Your task to perform on an android device: toggle show notifications on the lock screen Image 0: 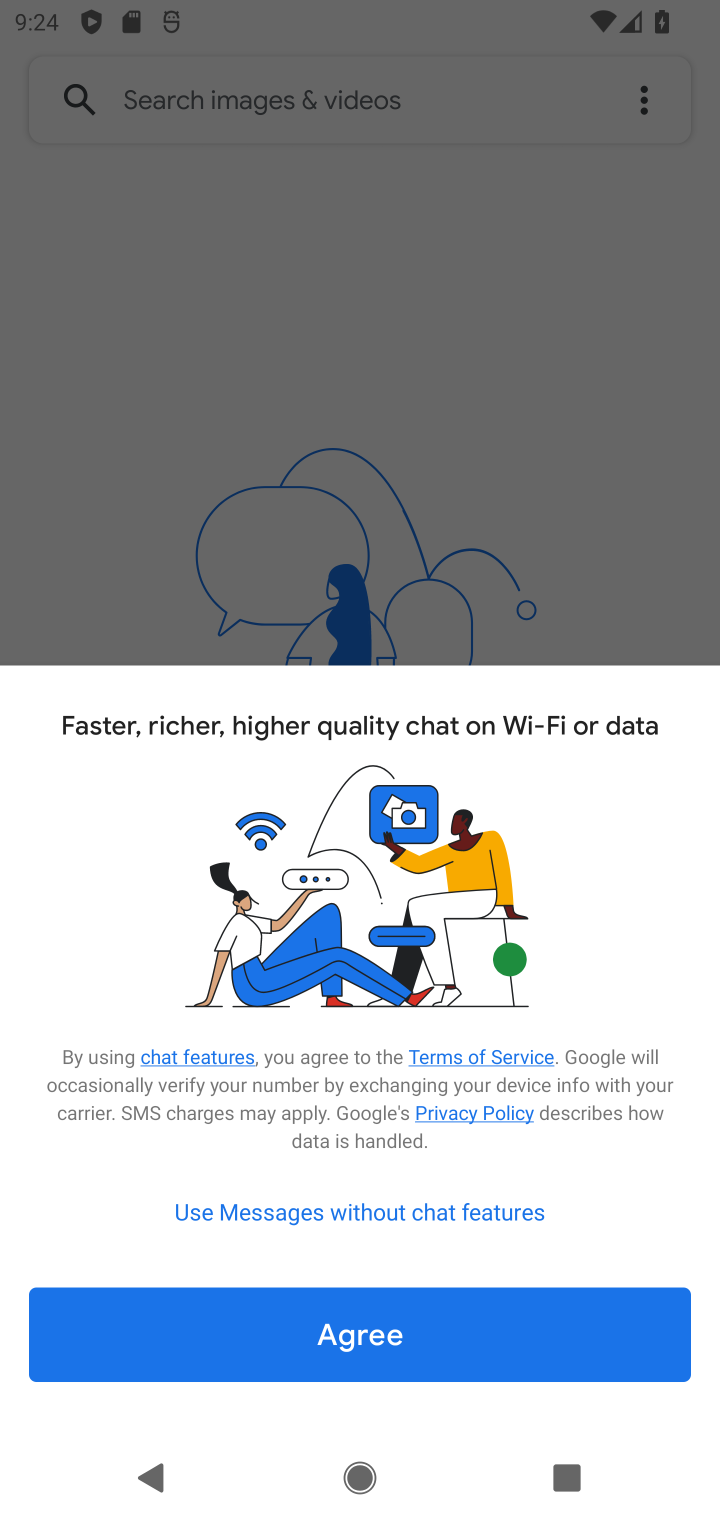
Step 0: press home button
Your task to perform on an android device: toggle show notifications on the lock screen Image 1: 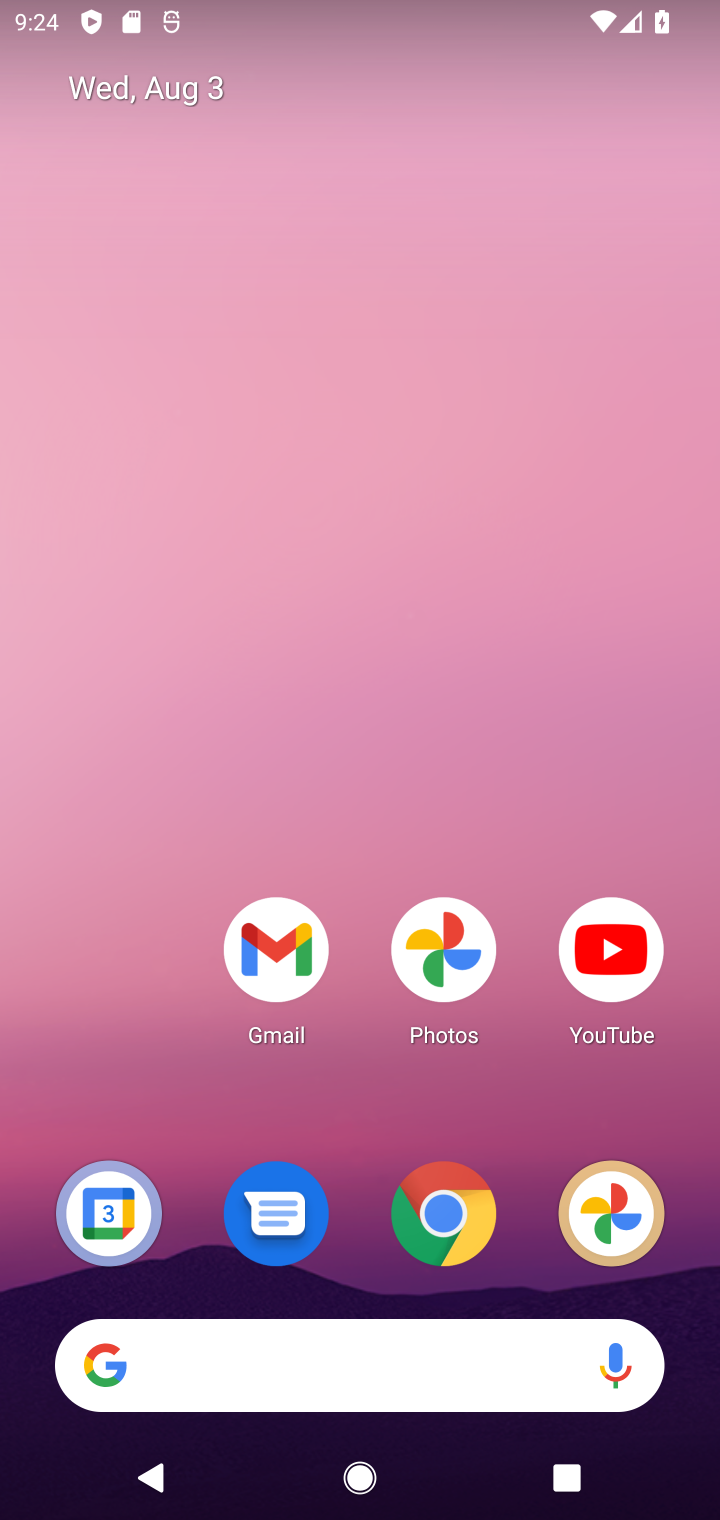
Step 1: drag from (513, 1066) to (449, 357)
Your task to perform on an android device: toggle show notifications on the lock screen Image 2: 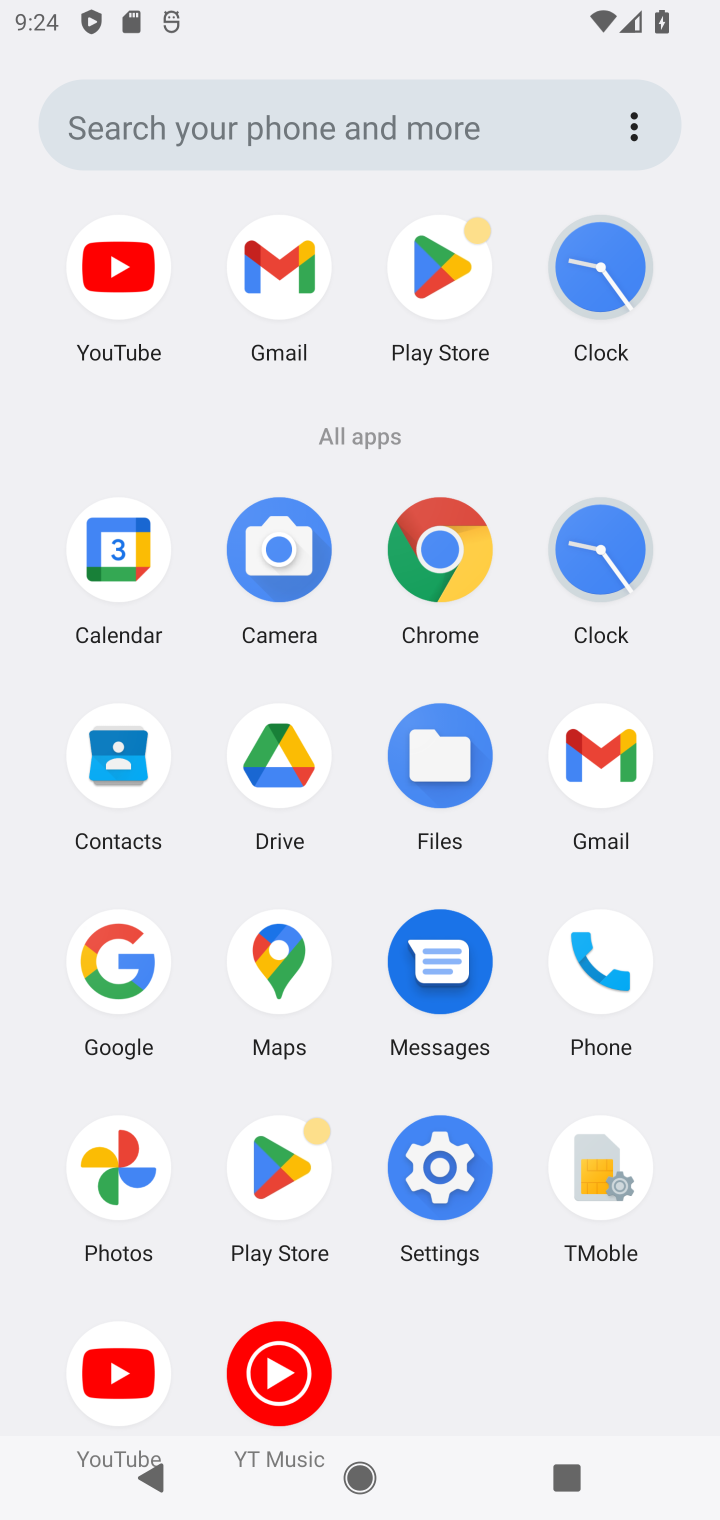
Step 2: click (439, 1147)
Your task to perform on an android device: toggle show notifications on the lock screen Image 3: 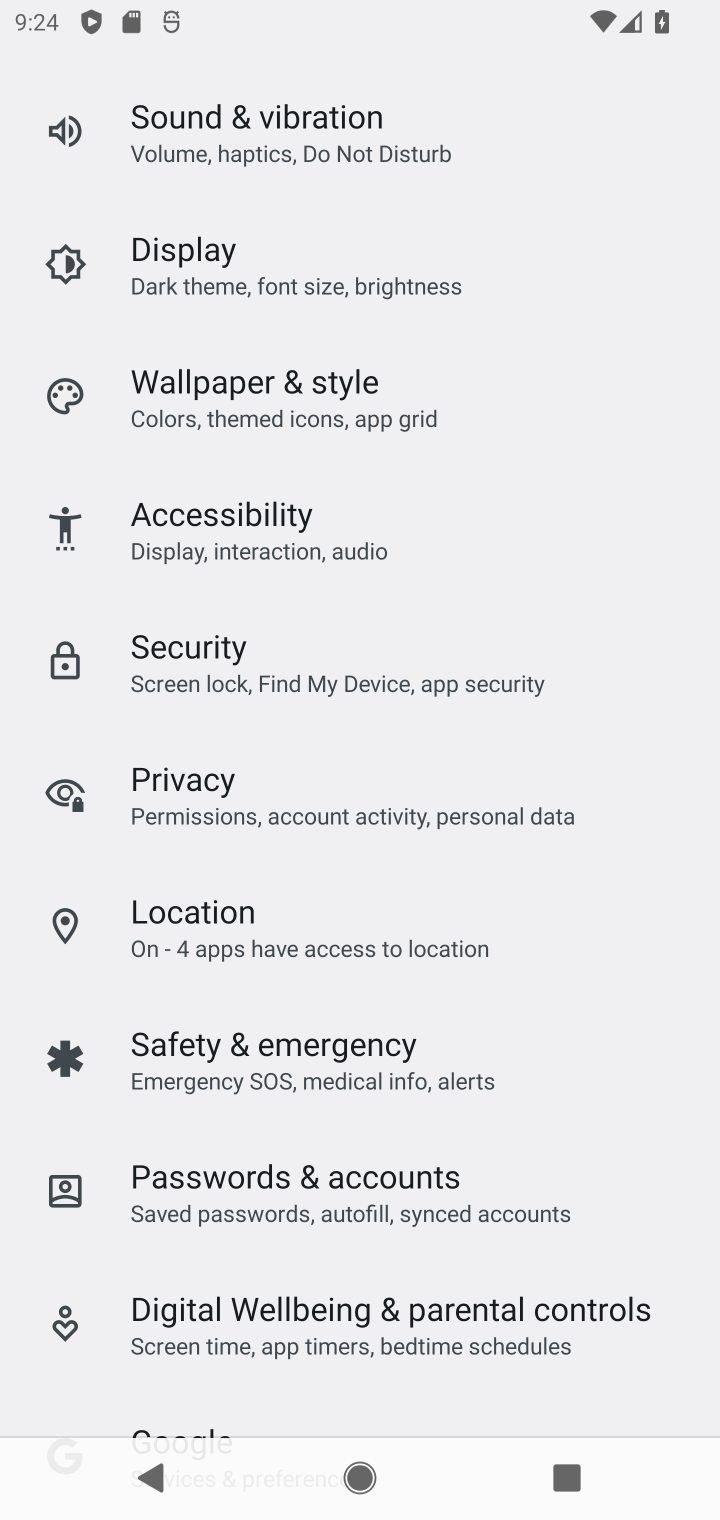
Step 3: drag from (283, 229) to (298, 676)
Your task to perform on an android device: toggle show notifications on the lock screen Image 4: 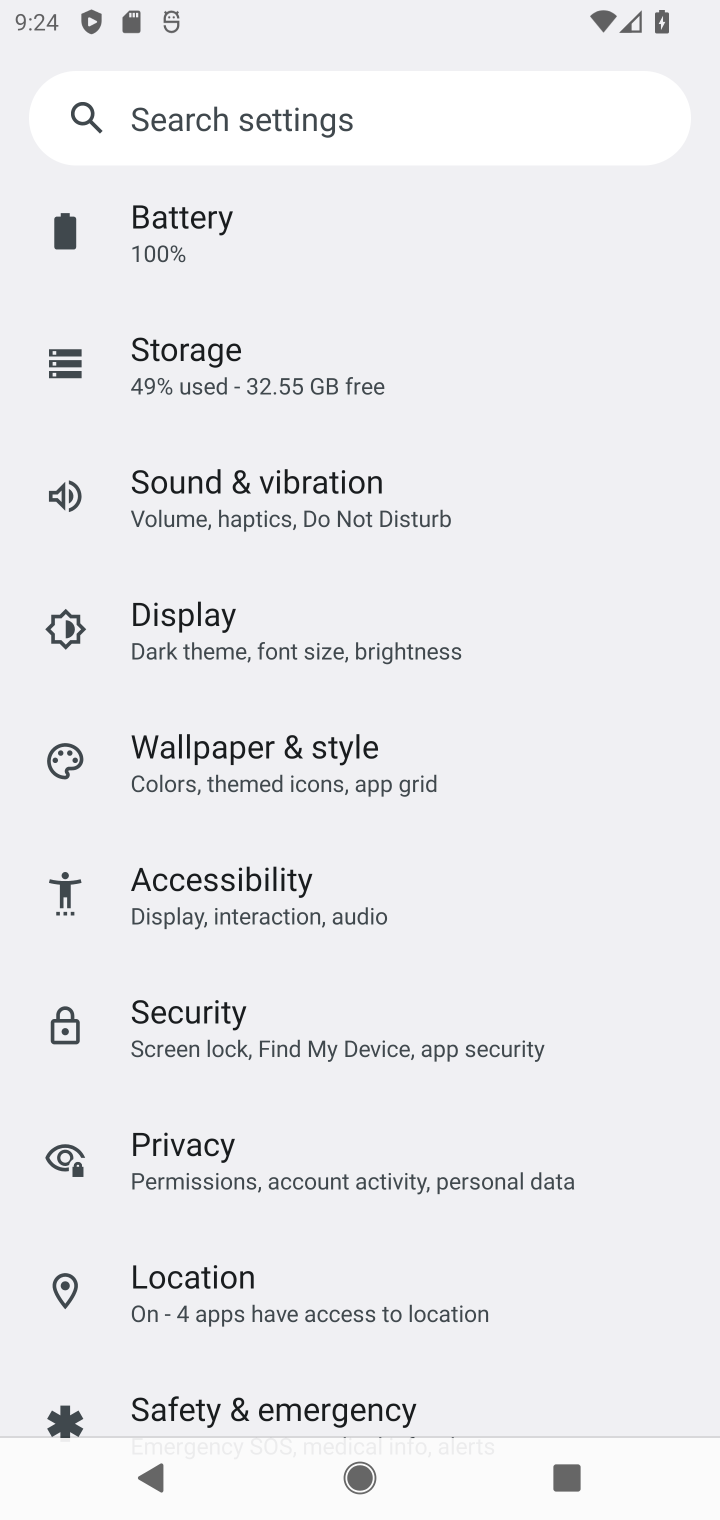
Step 4: drag from (195, 293) to (273, 924)
Your task to perform on an android device: toggle show notifications on the lock screen Image 5: 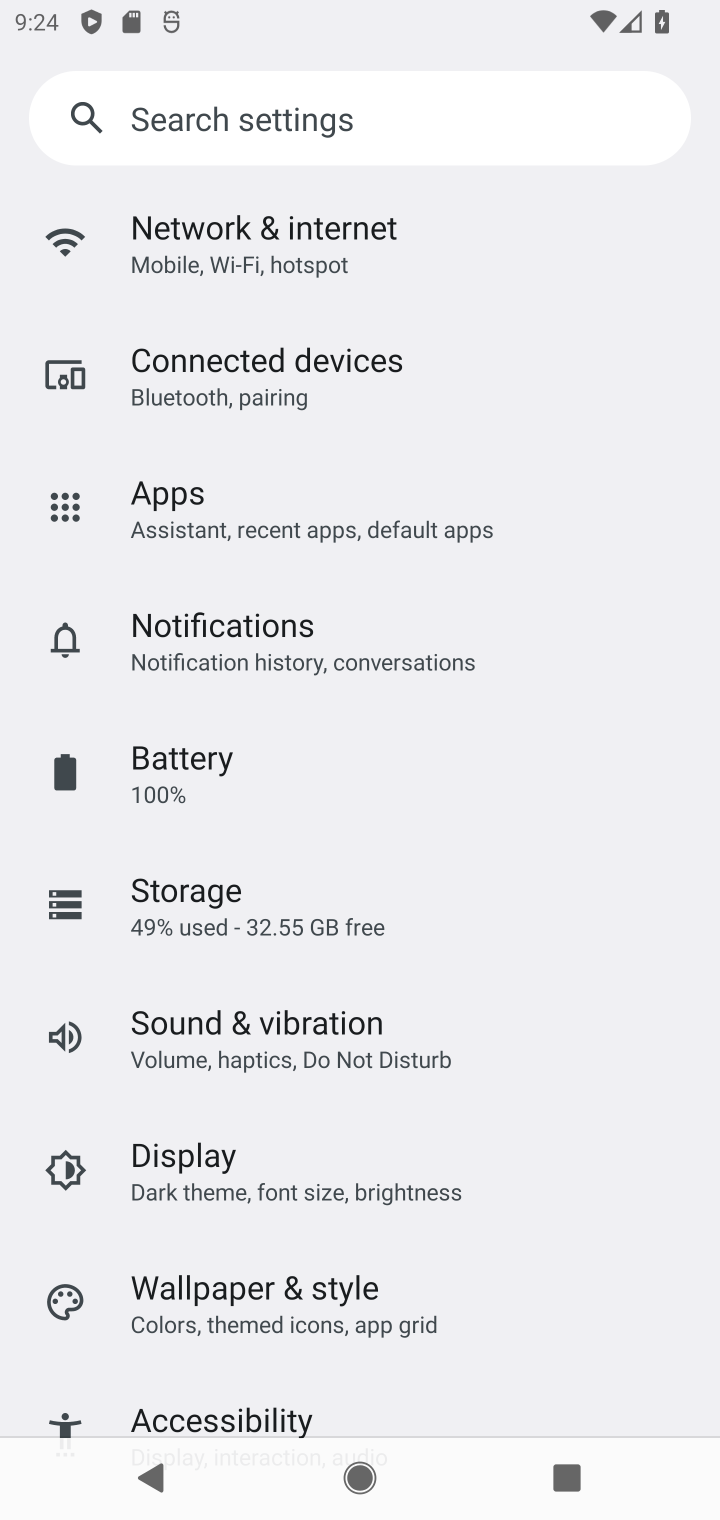
Step 5: click (299, 634)
Your task to perform on an android device: toggle show notifications on the lock screen Image 6: 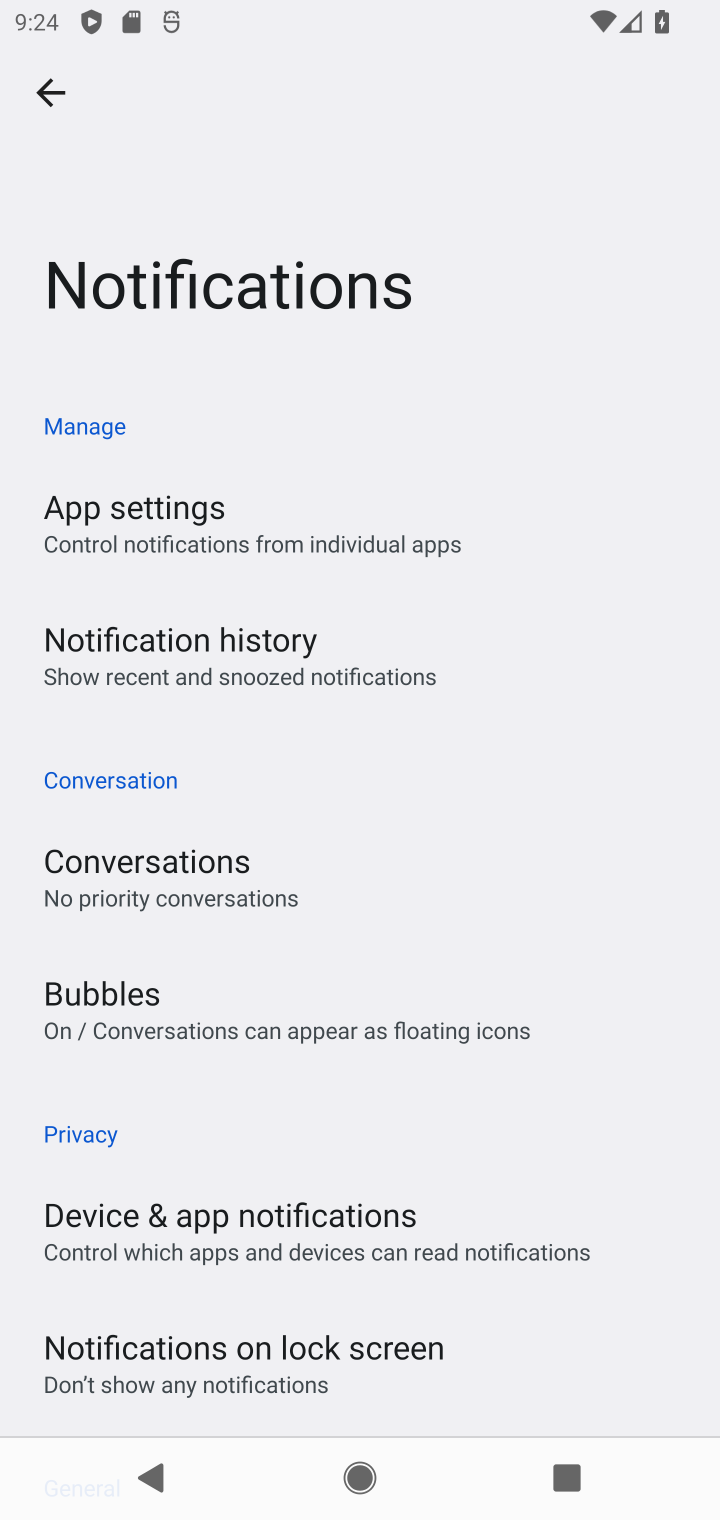
Step 6: click (342, 1342)
Your task to perform on an android device: toggle show notifications on the lock screen Image 7: 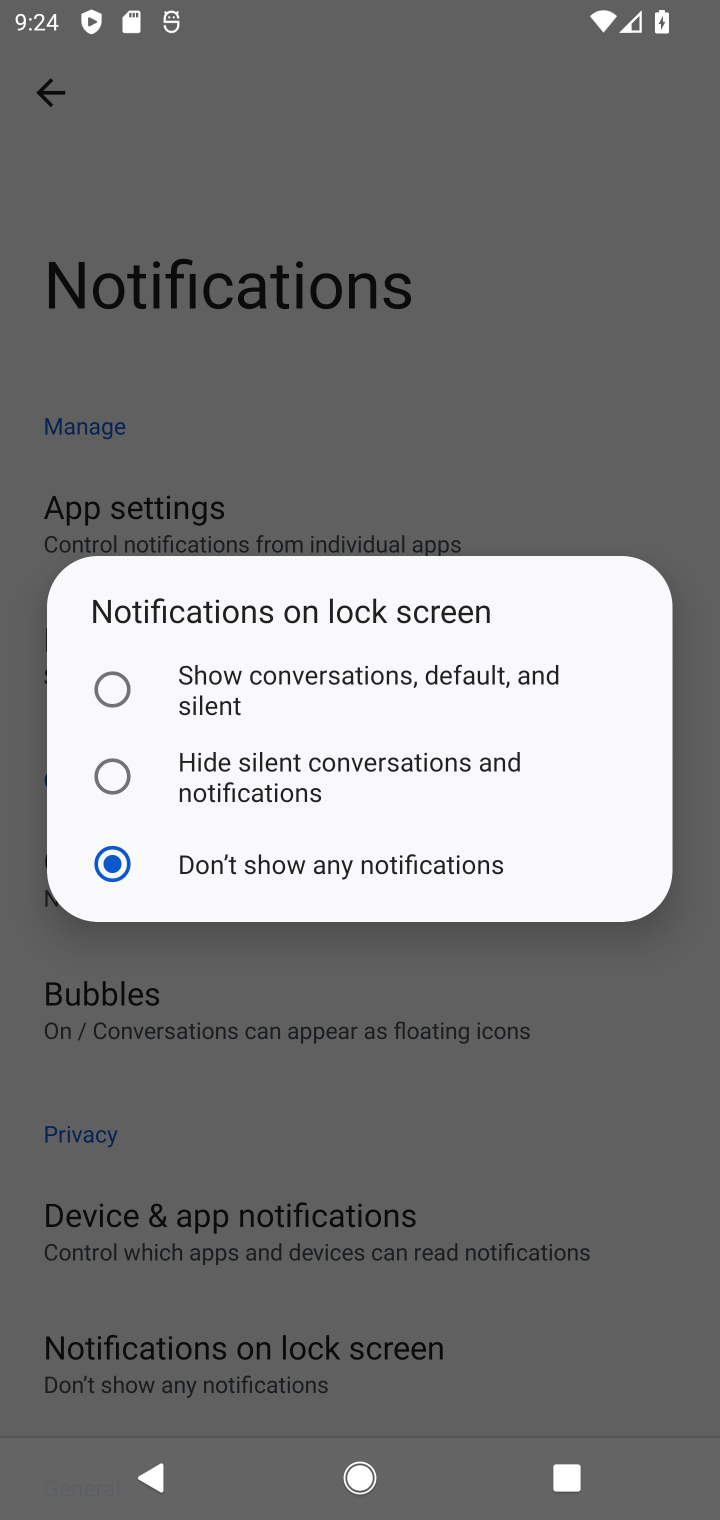
Step 7: click (191, 679)
Your task to perform on an android device: toggle show notifications on the lock screen Image 8: 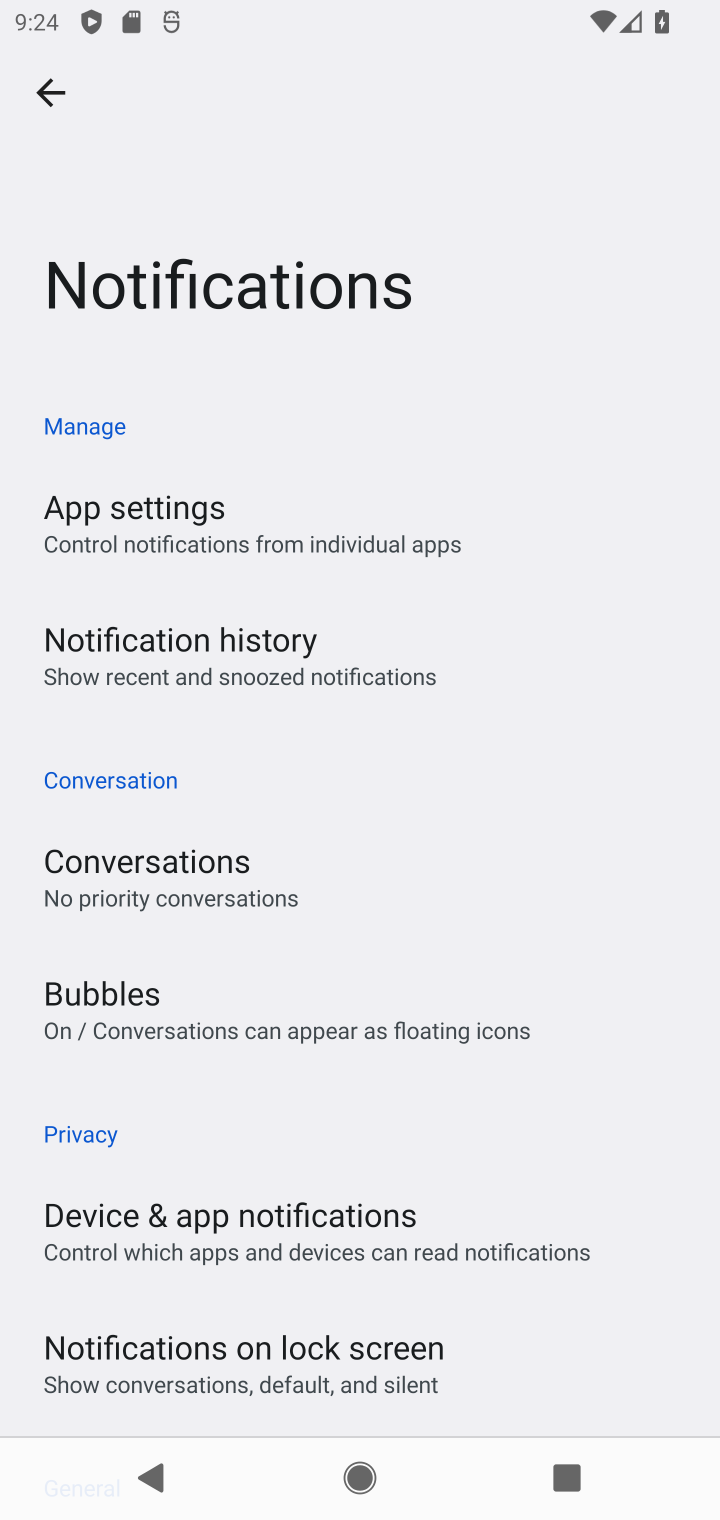
Step 8: task complete